Your task to perform on an android device: Open a new Chrome incognito tab Image 0: 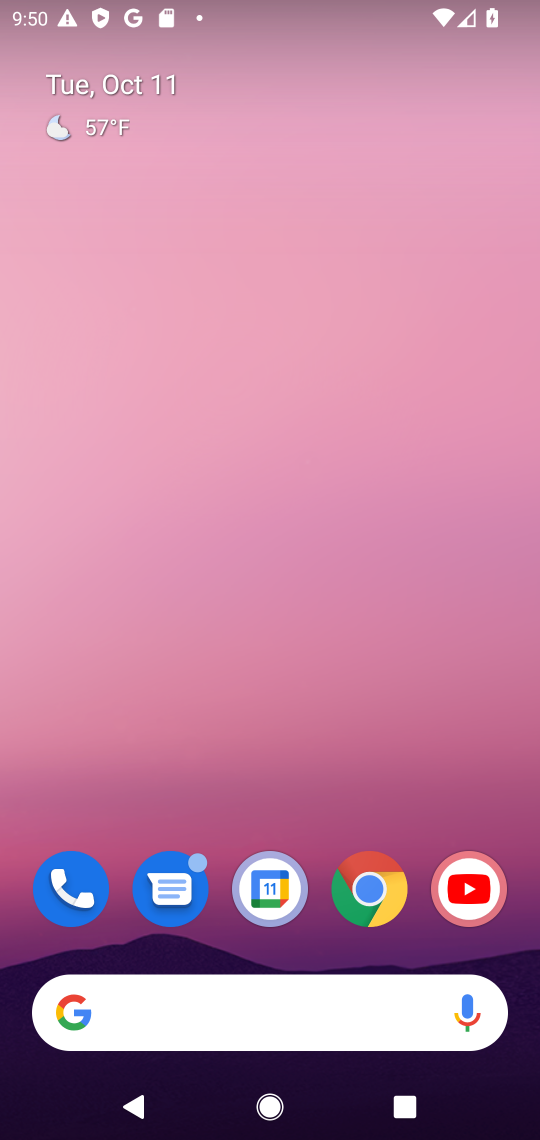
Step 0: click (359, 887)
Your task to perform on an android device: Open a new Chrome incognito tab Image 1: 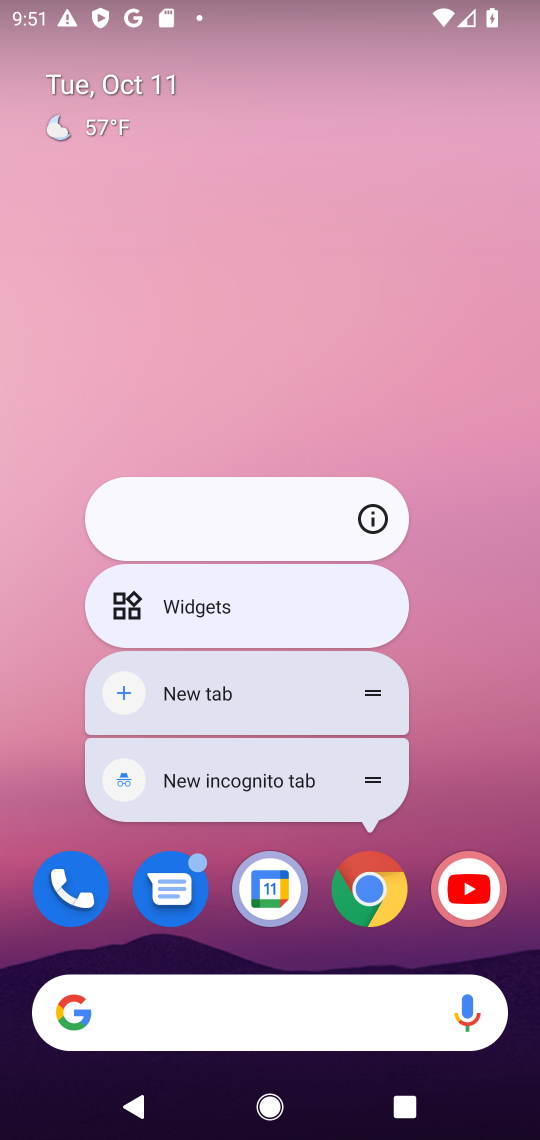
Step 1: click (376, 887)
Your task to perform on an android device: Open a new Chrome incognito tab Image 2: 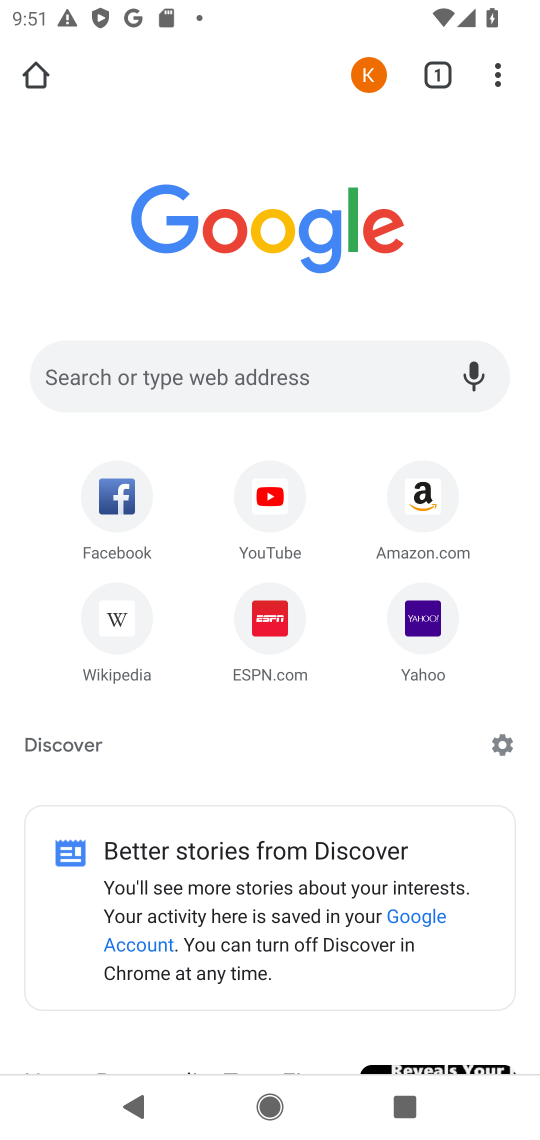
Step 2: task complete